Your task to perform on an android device: Open location settings Image 0: 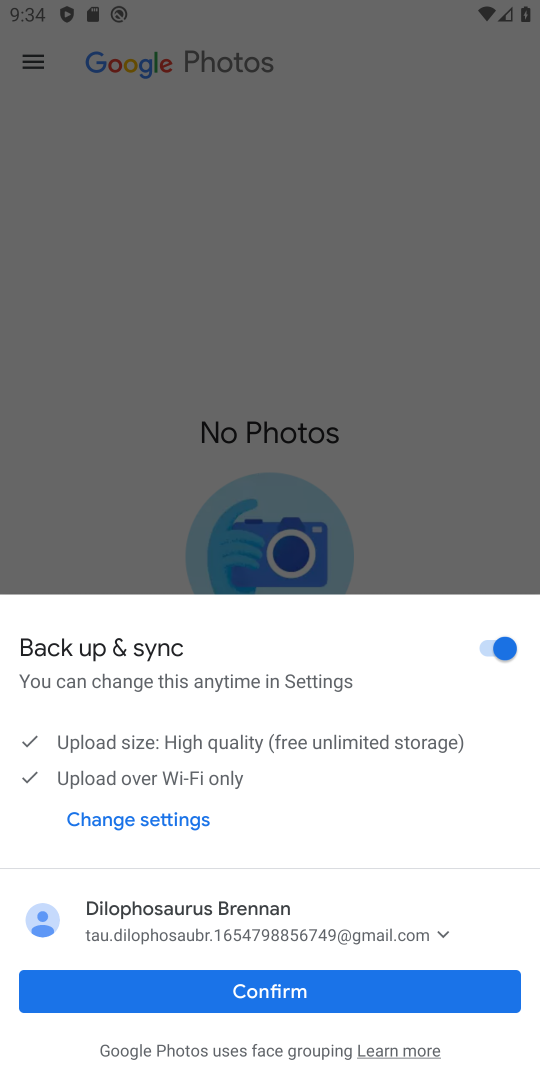
Step 0: press home button
Your task to perform on an android device: Open location settings Image 1: 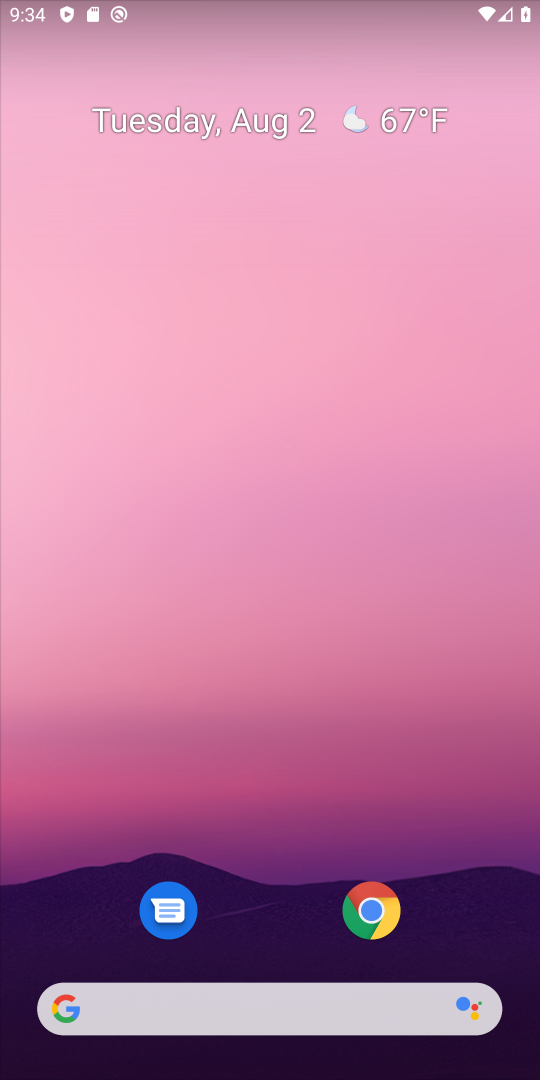
Step 1: drag from (283, 946) to (319, 363)
Your task to perform on an android device: Open location settings Image 2: 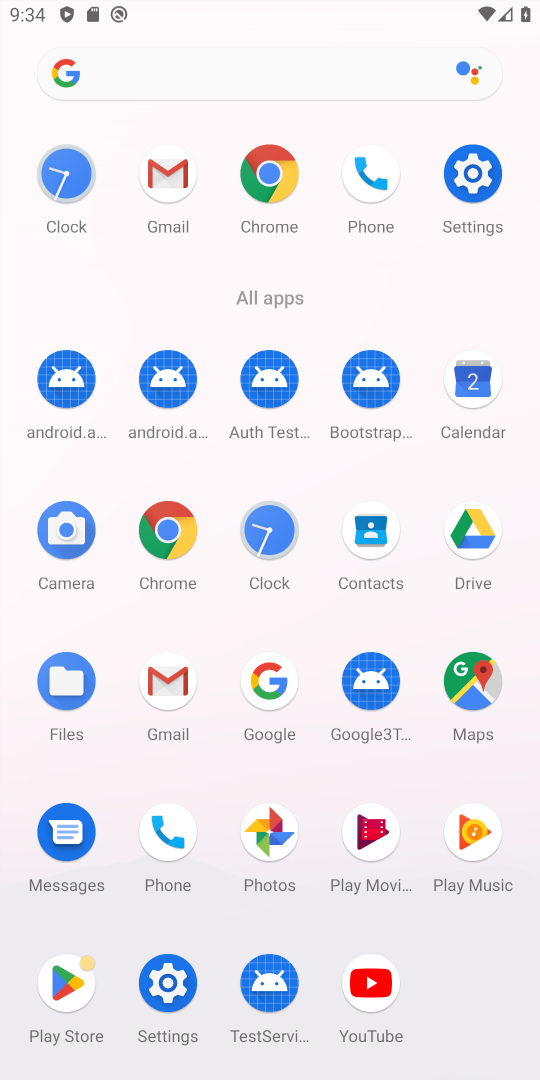
Step 2: click (474, 185)
Your task to perform on an android device: Open location settings Image 3: 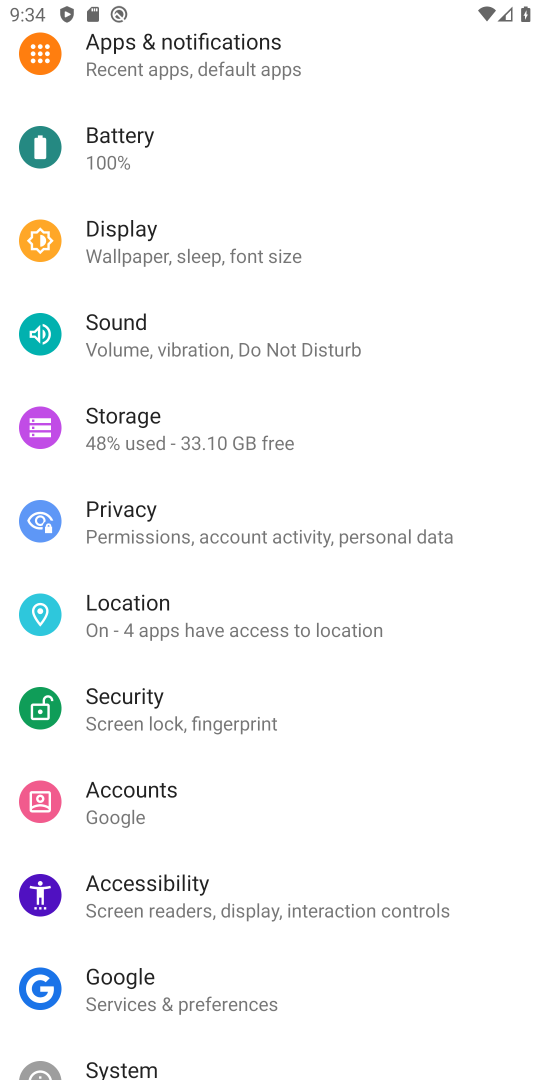
Step 3: click (209, 597)
Your task to perform on an android device: Open location settings Image 4: 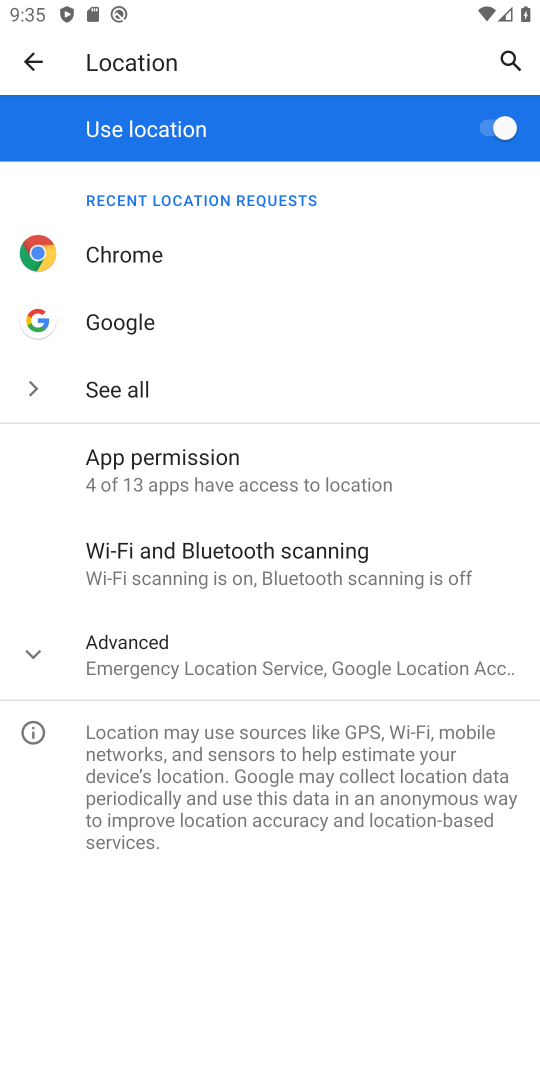
Step 4: task complete